Your task to perform on an android device: open app "Google Play Games" (install if not already installed) Image 0: 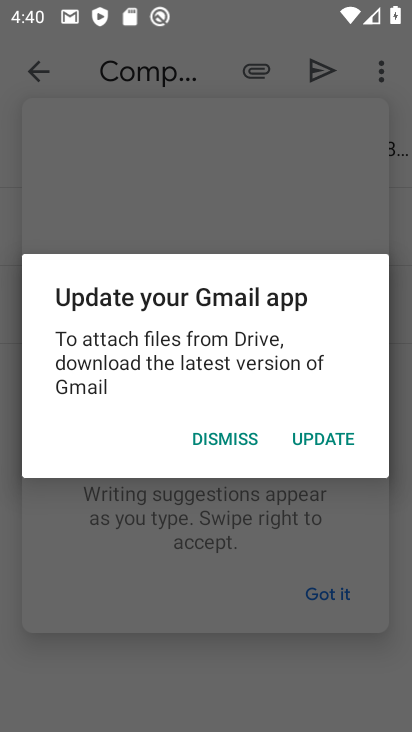
Step 0: press home button
Your task to perform on an android device: open app "Google Play Games" (install if not already installed) Image 1: 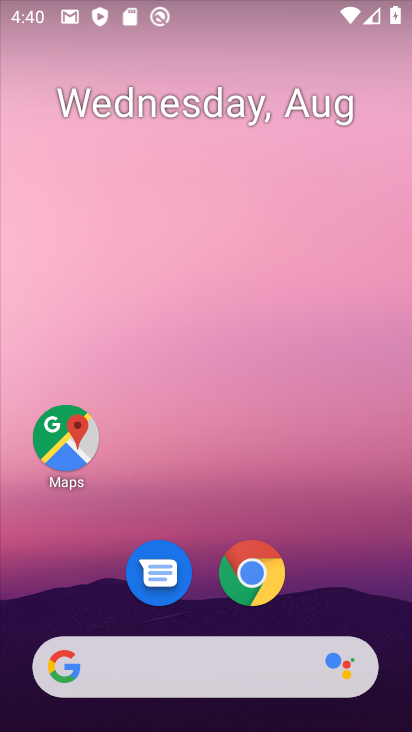
Step 1: drag from (172, 143) to (175, 86)
Your task to perform on an android device: open app "Google Play Games" (install if not already installed) Image 2: 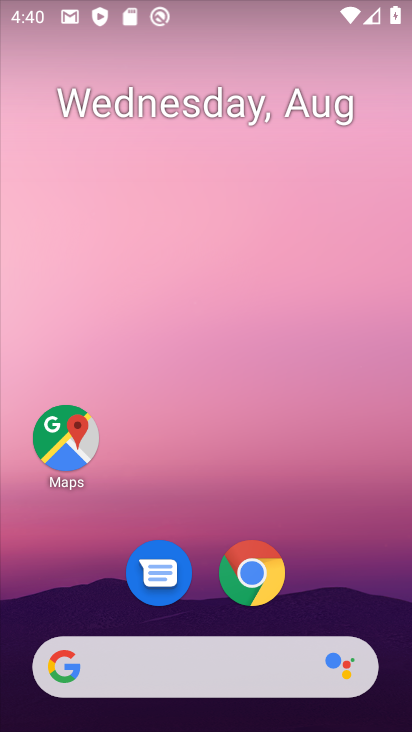
Step 2: drag from (195, 595) to (225, 91)
Your task to perform on an android device: open app "Google Play Games" (install if not already installed) Image 3: 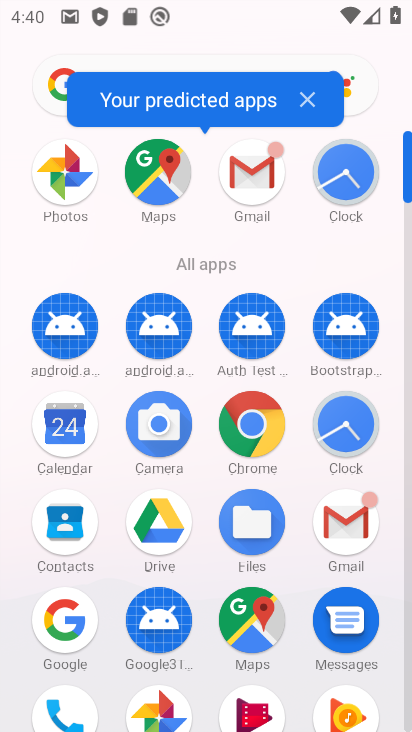
Step 3: click (144, 46)
Your task to perform on an android device: open app "Google Play Games" (install if not already installed) Image 4: 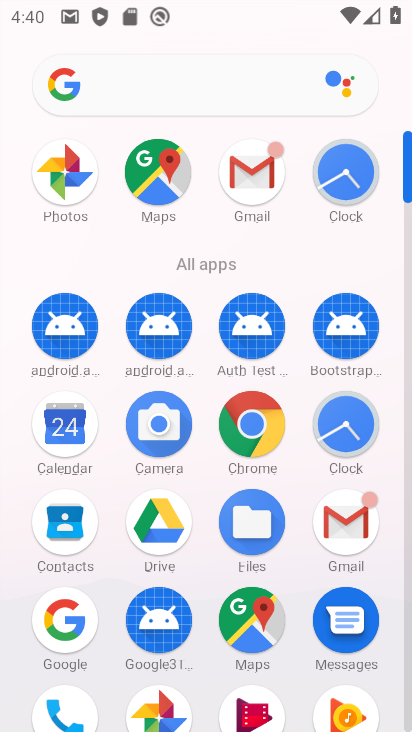
Step 4: drag from (205, 392) to (191, 242)
Your task to perform on an android device: open app "Google Play Games" (install if not already installed) Image 5: 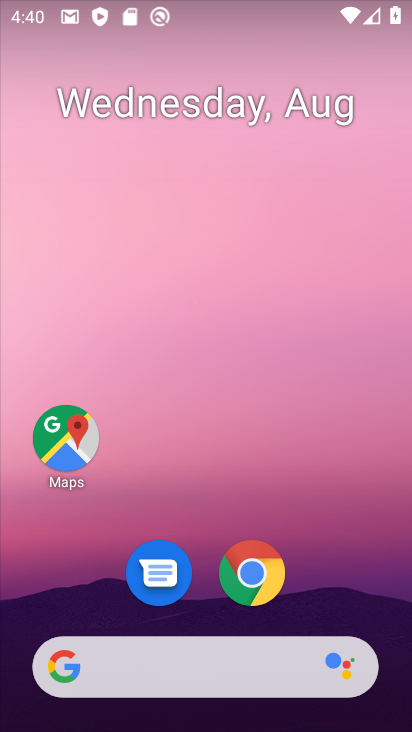
Step 5: click (197, 665)
Your task to perform on an android device: open app "Google Play Games" (install if not already installed) Image 6: 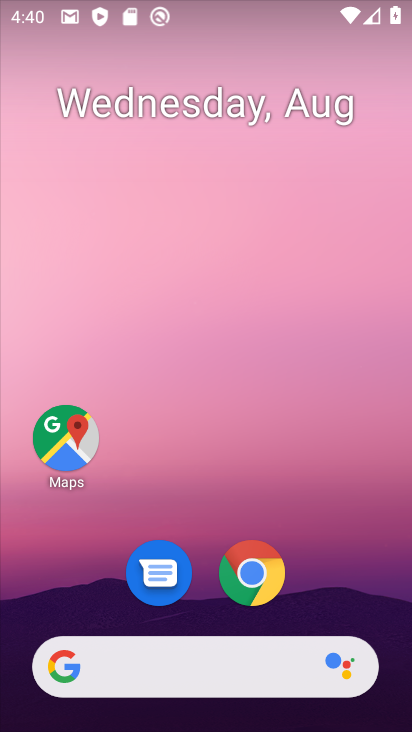
Step 6: drag from (196, 662) to (205, 607)
Your task to perform on an android device: open app "Google Play Games" (install if not already installed) Image 7: 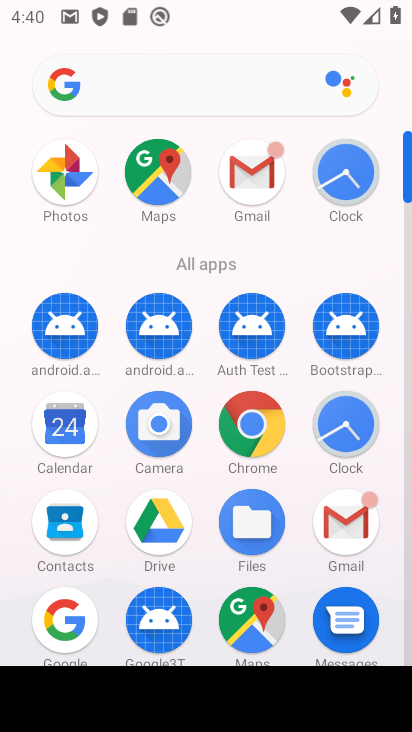
Step 7: drag from (204, 577) to (204, 243)
Your task to perform on an android device: open app "Google Play Games" (install if not already installed) Image 8: 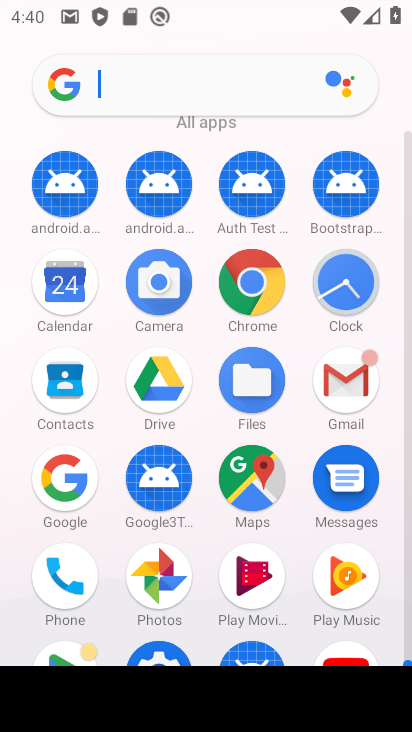
Step 8: drag from (195, 600) to (188, 305)
Your task to perform on an android device: open app "Google Play Games" (install if not already installed) Image 9: 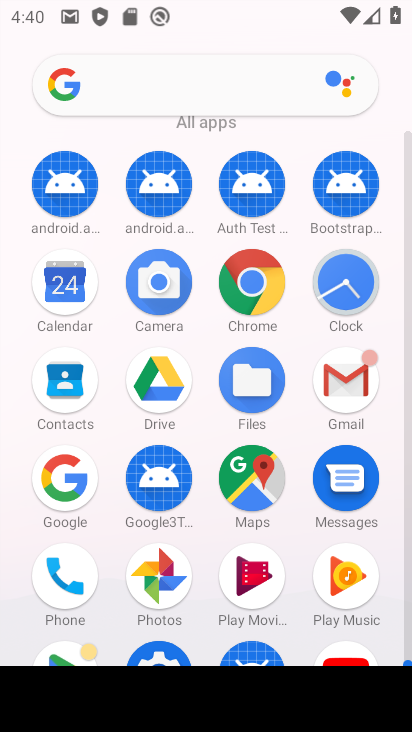
Step 9: drag from (204, 615) to (245, 93)
Your task to perform on an android device: open app "Google Play Games" (install if not already installed) Image 10: 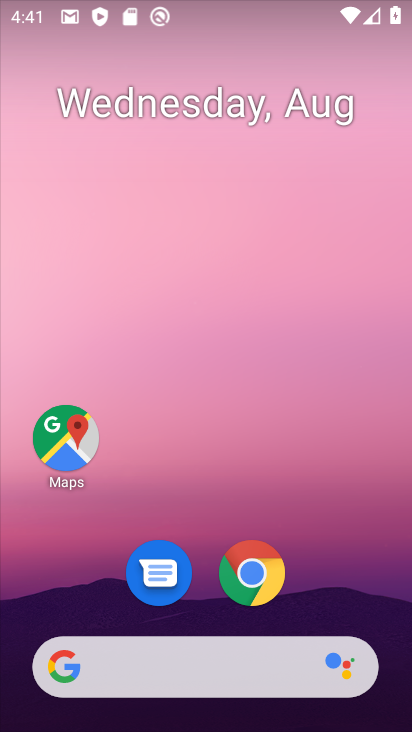
Step 10: drag from (197, 582) to (195, 3)
Your task to perform on an android device: open app "Google Play Games" (install if not already installed) Image 11: 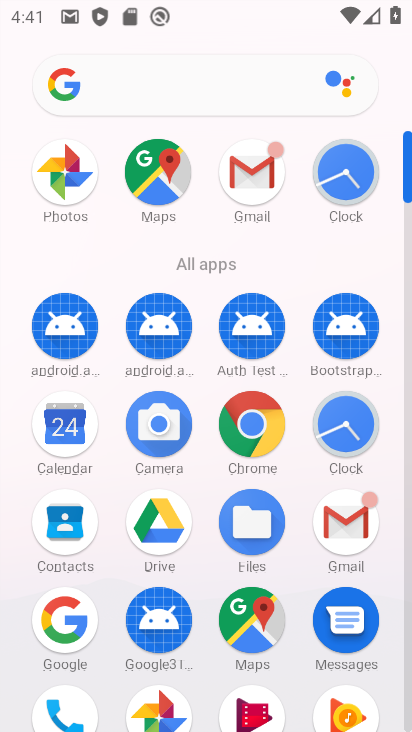
Step 11: drag from (195, 606) to (183, 301)
Your task to perform on an android device: open app "Google Play Games" (install if not already installed) Image 12: 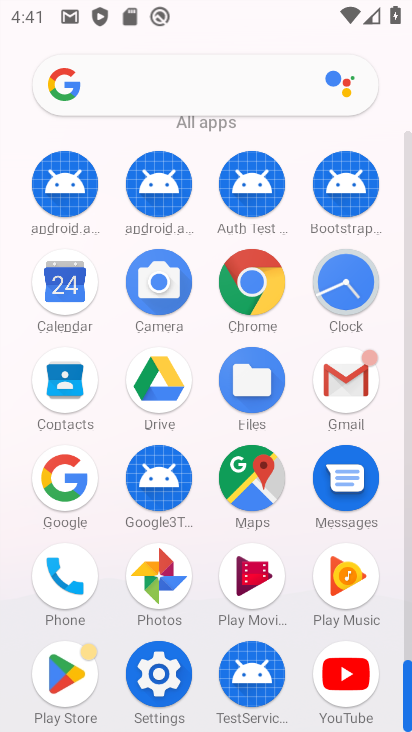
Step 12: click (63, 673)
Your task to perform on an android device: open app "Google Play Games" (install if not already installed) Image 13: 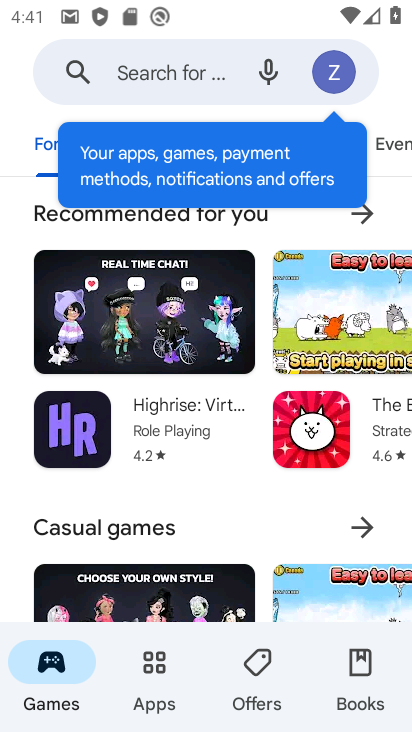
Step 13: click (182, 72)
Your task to perform on an android device: open app "Google Play Games" (install if not already installed) Image 14: 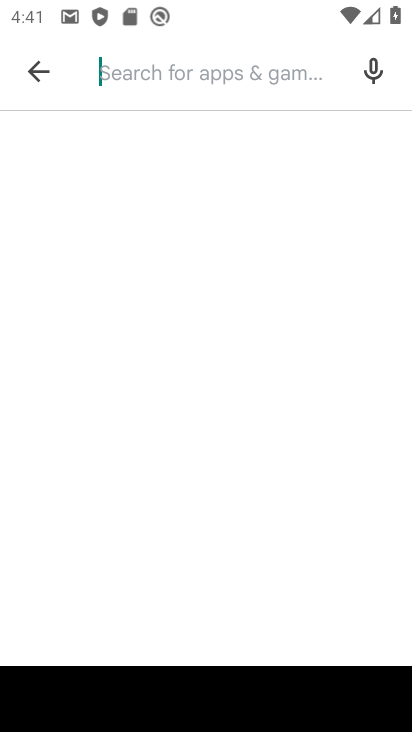
Step 14: type "Google Play Games"
Your task to perform on an android device: open app "Google Play Games" (install if not already installed) Image 15: 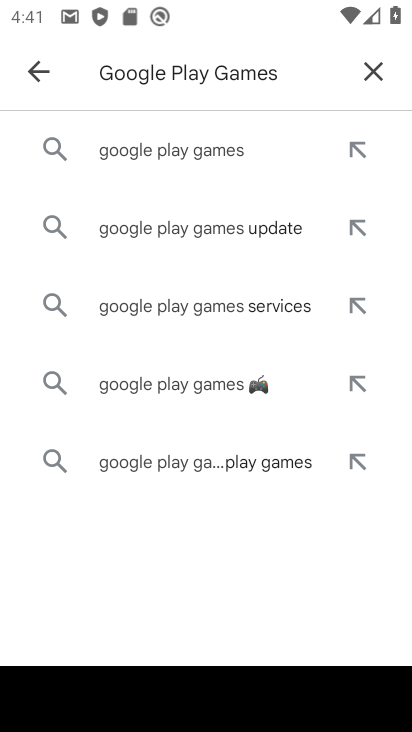
Step 15: click (133, 157)
Your task to perform on an android device: open app "Google Play Games" (install if not already installed) Image 16: 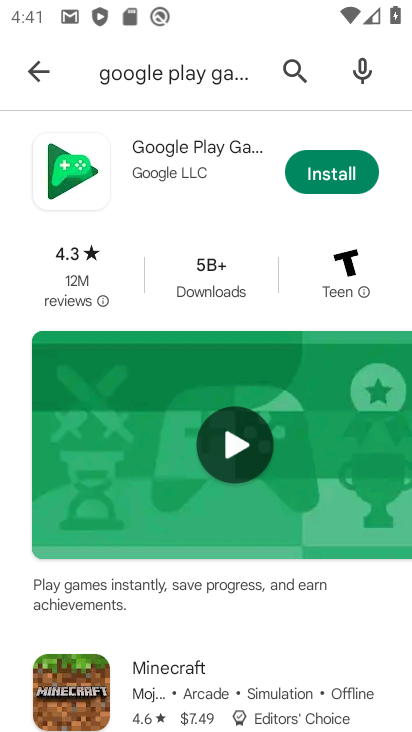
Step 16: click (311, 172)
Your task to perform on an android device: open app "Google Play Games" (install if not already installed) Image 17: 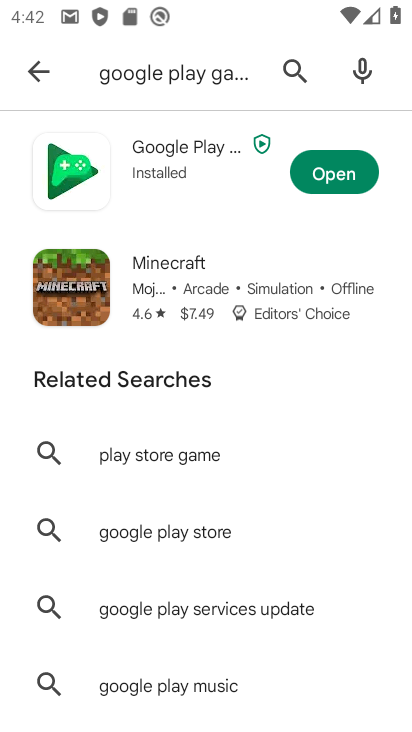
Step 17: click (331, 162)
Your task to perform on an android device: open app "Google Play Games" (install if not already installed) Image 18: 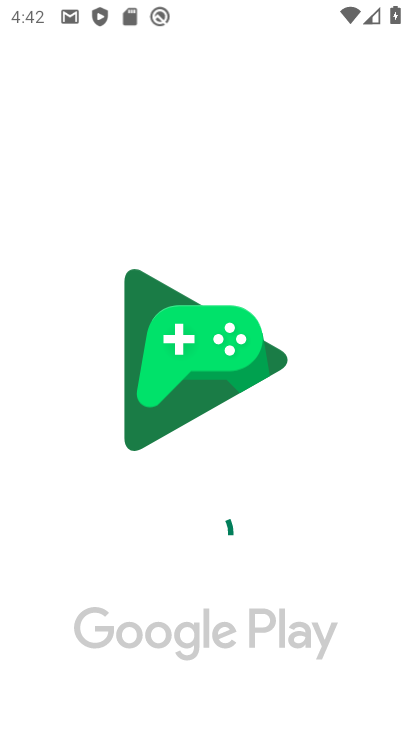
Step 18: task complete